Your task to perform on an android device: move an email to a new category in the gmail app Image 0: 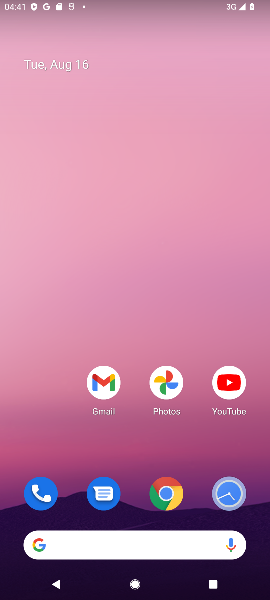
Step 0: press home button
Your task to perform on an android device: move an email to a new category in the gmail app Image 1: 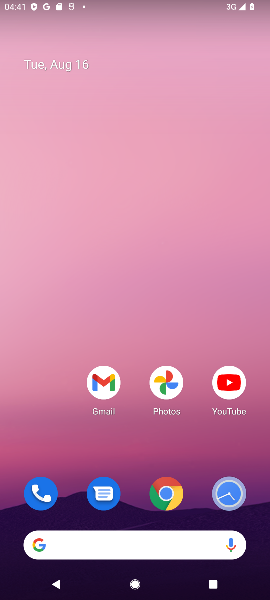
Step 1: drag from (68, 465) to (55, 194)
Your task to perform on an android device: move an email to a new category in the gmail app Image 2: 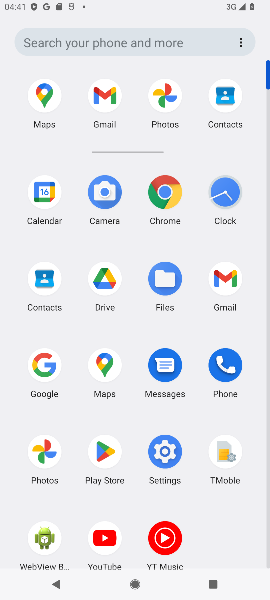
Step 2: click (223, 288)
Your task to perform on an android device: move an email to a new category in the gmail app Image 3: 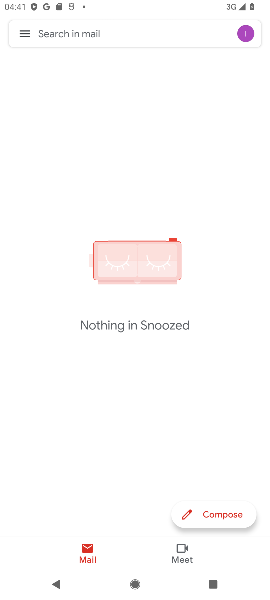
Step 3: click (25, 31)
Your task to perform on an android device: move an email to a new category in the gmail app Image 4: 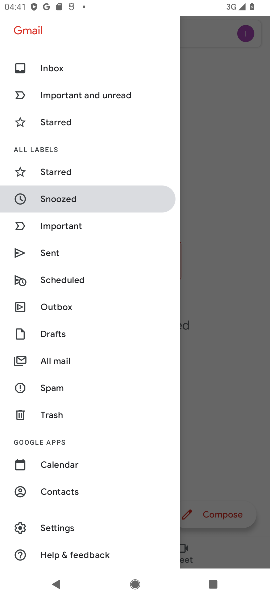
Step 4: click (62, 360)
Your task to perform on an android device: move an email to a new category in the gmail app Image 5: 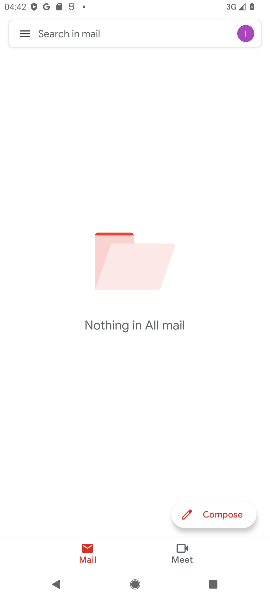
Step 5: task complete